Your task to perform on an android device: open chrome privacy settings Image 0: 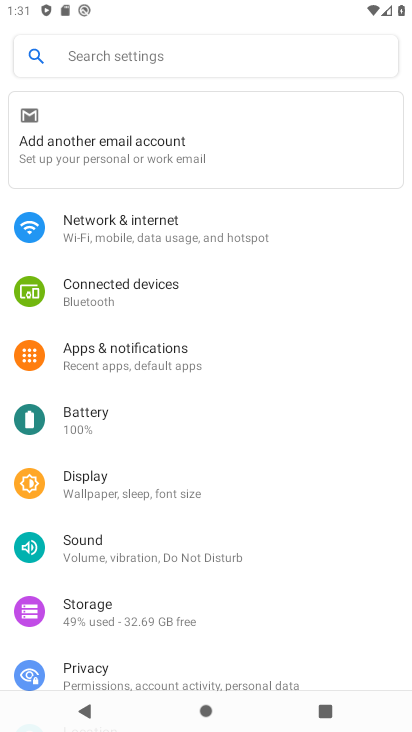
Step 0: press home button
Your task to perform on an android device: open chrome privacy settings Image 1: 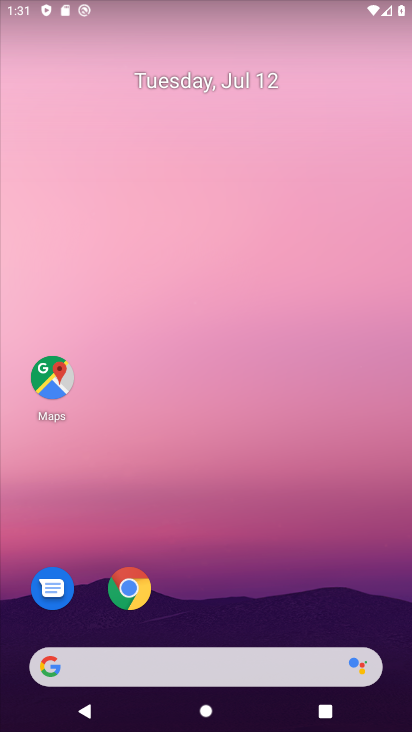
Step 1: click (128, 595)
Your task to perform on an android device: open chrome privacy settings Image 2: 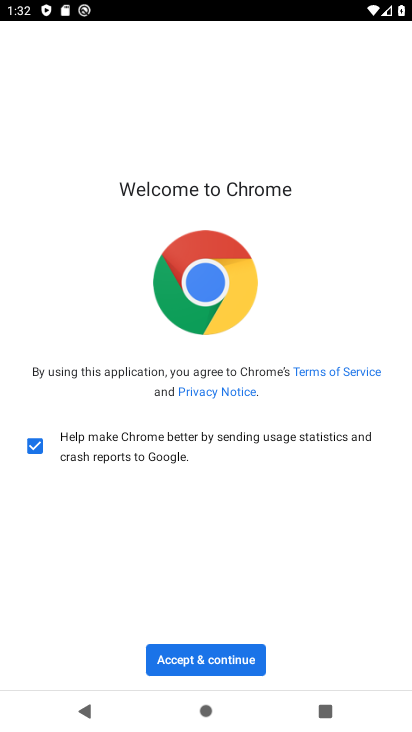
Step 2: click (224, 672)
Your task to perform on an android device: open chrome privacy settings Image 3: 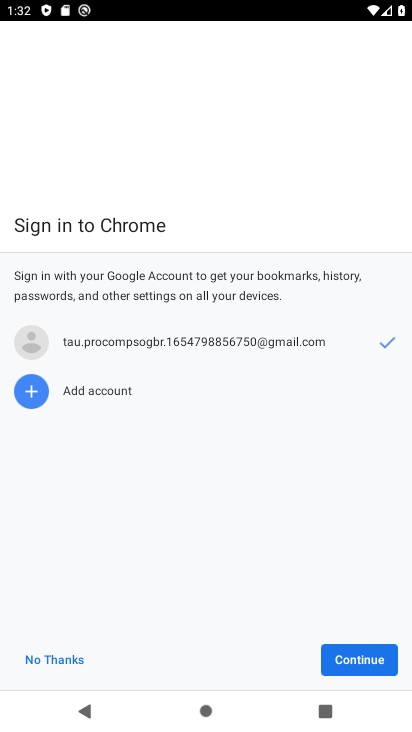
Step 3: click (345, 658)
Your task to perform on an android device: open chrome privacy settings Image 4: 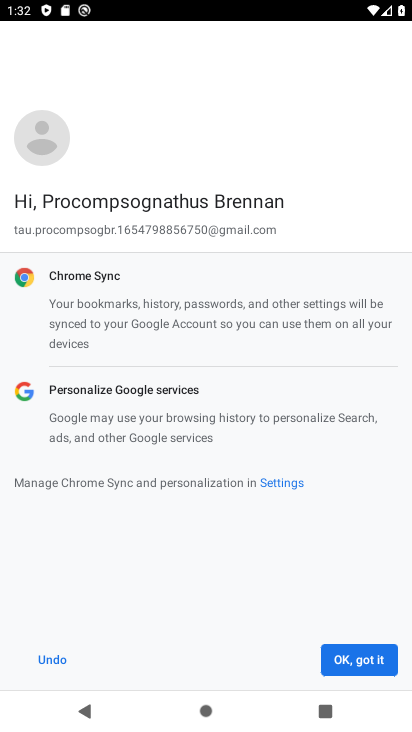
Step 4: click (345, 658)
Your task to perform on an android device: open chrome privacy settings Image 5: 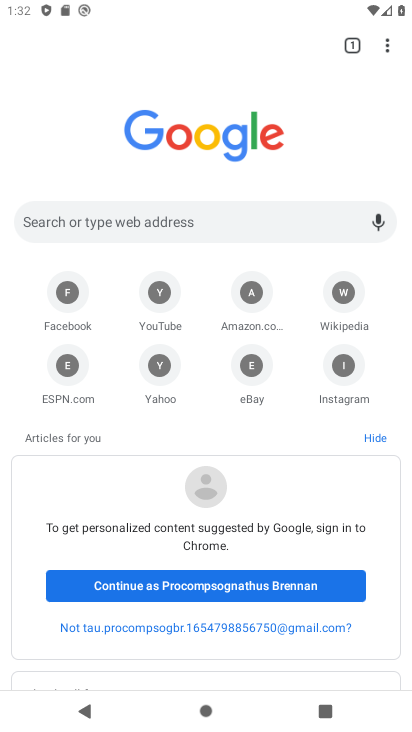
Step 5: click (399, 52)
Your task to perform on an android device: open chrome privacy settings Image 6: 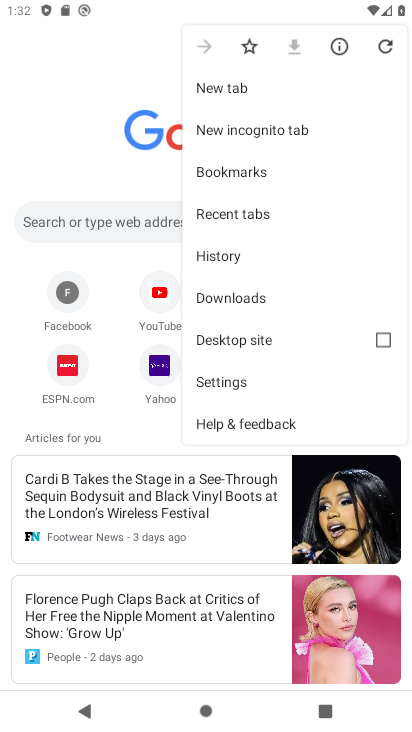
Step 6: click (230, 388)
Your task to perform on an android device: open chrome privacy settings Image 7: 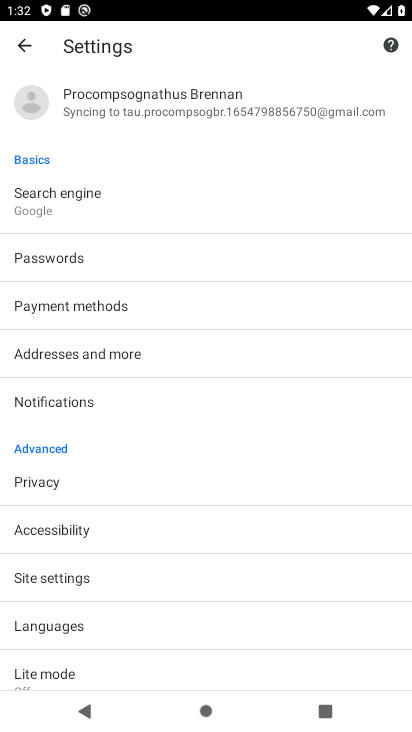
Step 7: click (64, 486)
Your task to perform on an android device: open chrome privacy settings Image 8: 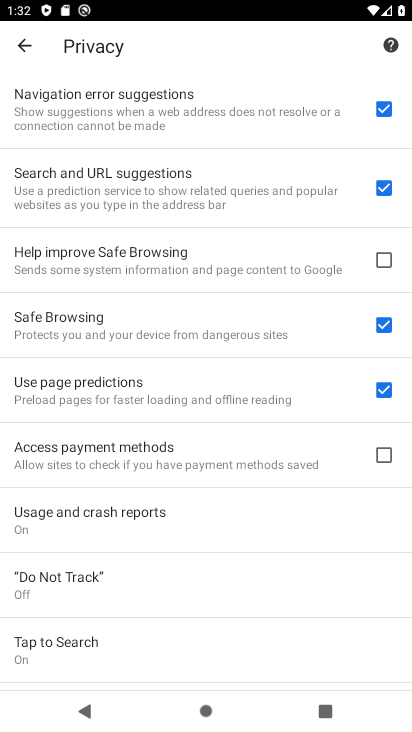
Step 8: task complete